Your task to perform on an android device: See recent photos Image 0: 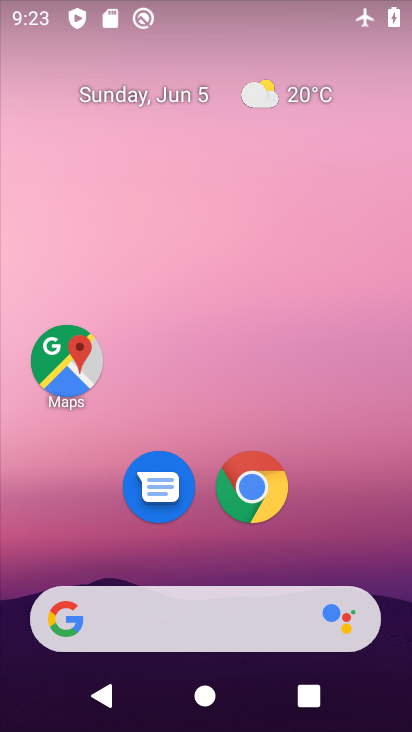
Step 0: drag from (232, 576) to (285, 90)
Your task to perform on an android device: See recent photos Image 1: 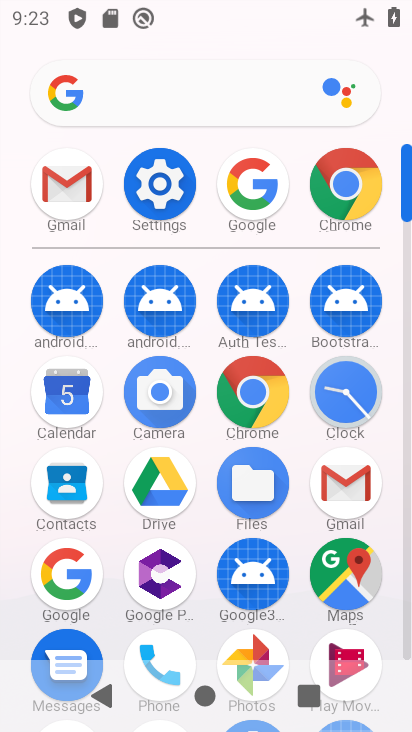
Step 1: drag from (212, 452) to (228, 363)
Your task to perform on an android device: See recent photos Image 2: 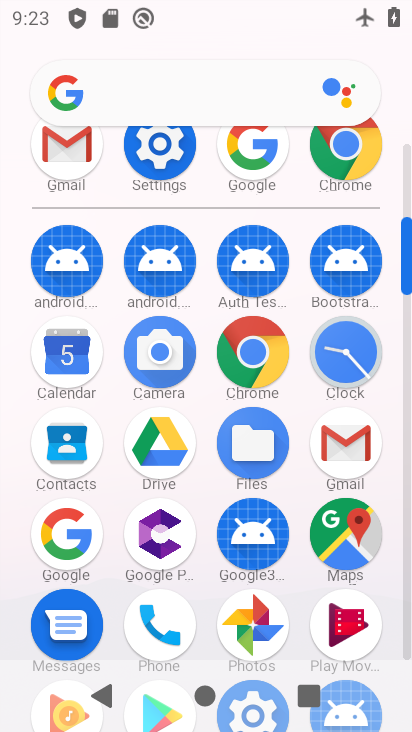
Step 2: drag from (204, 449) to (234, 203)
Your task to perform on an android device: See recent photos Image 3: 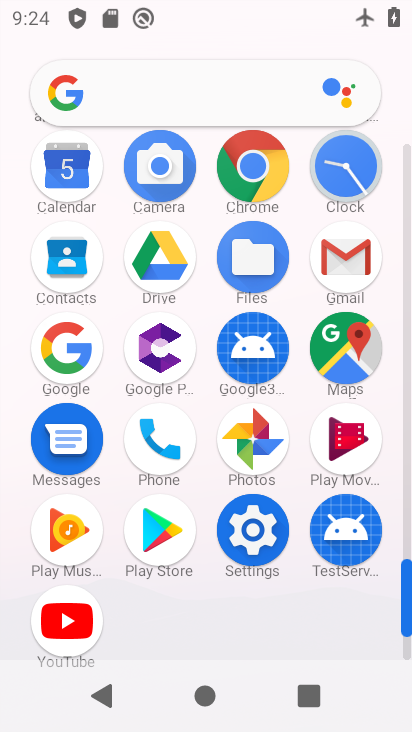
Step 3: click (265, 436)
Your task to perform on an android device: See recent photos Image 4: 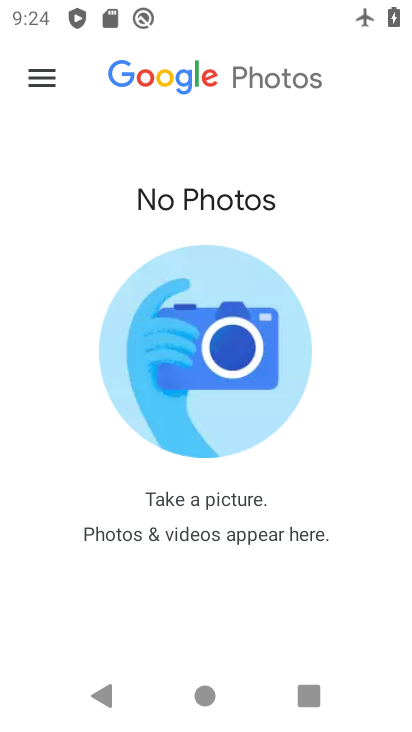
Step 4: task complete